Your task to perform on an android device: toggle data saver in the chrome app Image 0: 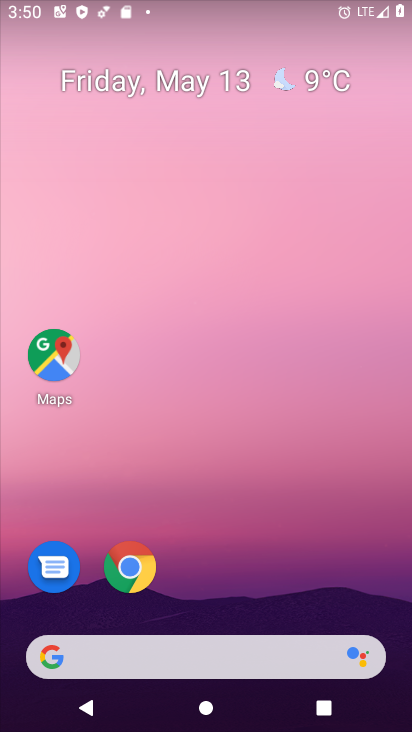
Step 0: click (132, 584)
Your task to perform on an android device: toggle data saver in the chrome app Image 1: 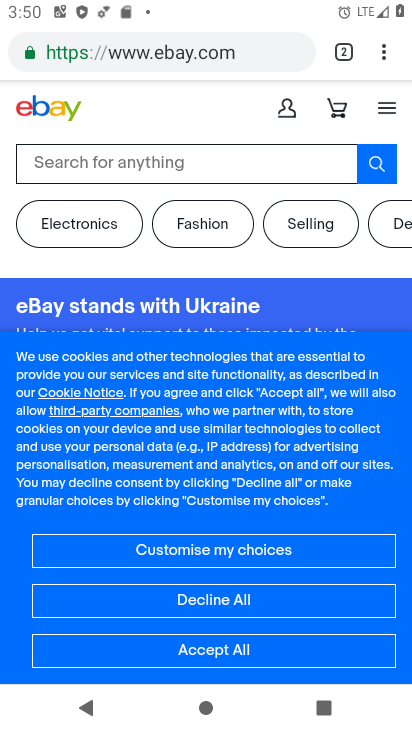
Step 1: click (383, 54)
Your task to perform on an android device: toggle data saver in the chrome app Image 2: 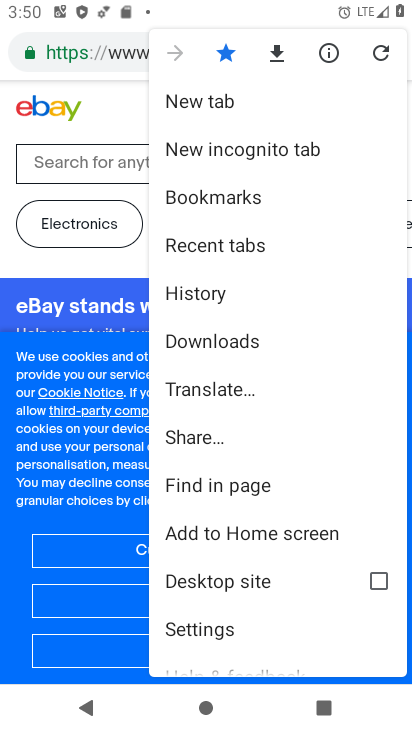
Step 2: click (211, 628)
Your task to perform on an android device: toggle data saver in the chrome app Image 3: 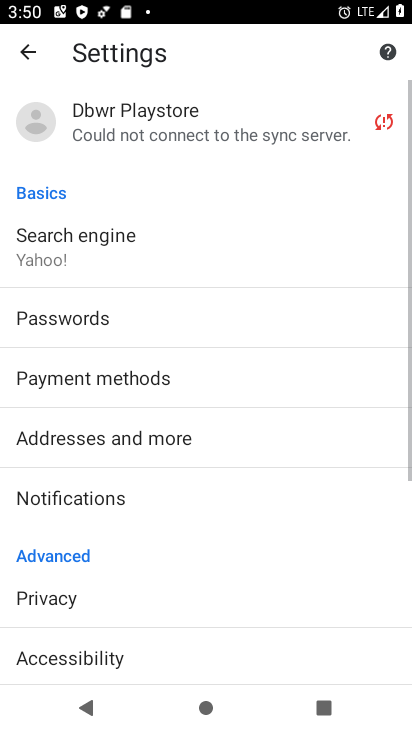
Step 3: drag from (181, 605) to (116, 140)
Your task to perform on an android device: toggle data saver in the chrome app Image 4: 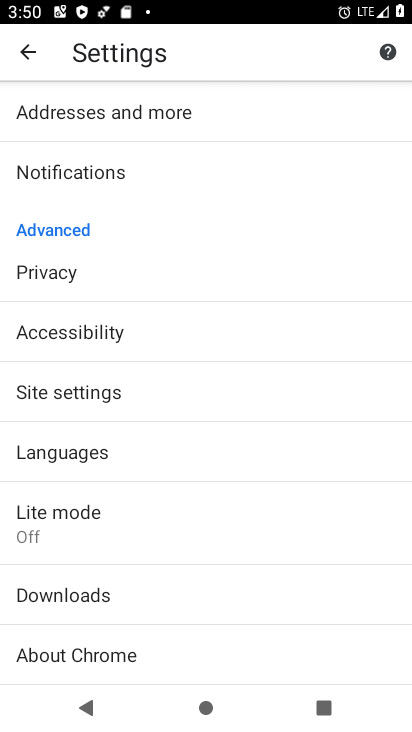
Step 4: click (49, 523)
Your task to perform on an android device: toggle data saver in the chrome app Image 5: 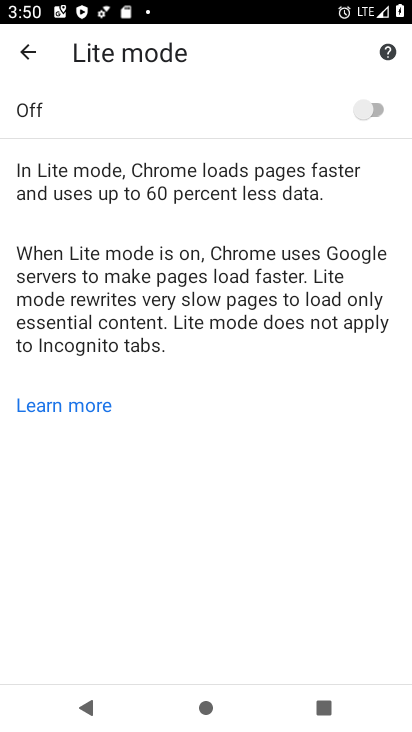
Step 5: click (363, 114)
Your task to perform on an android device: toggle data saver in the chrome app Image 6: 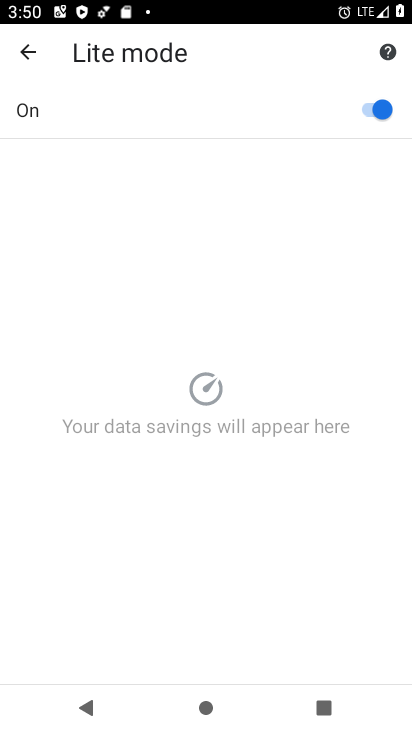
Step 6: task complete